Your task to perform on an android device: When is my next appointment? Image 0: 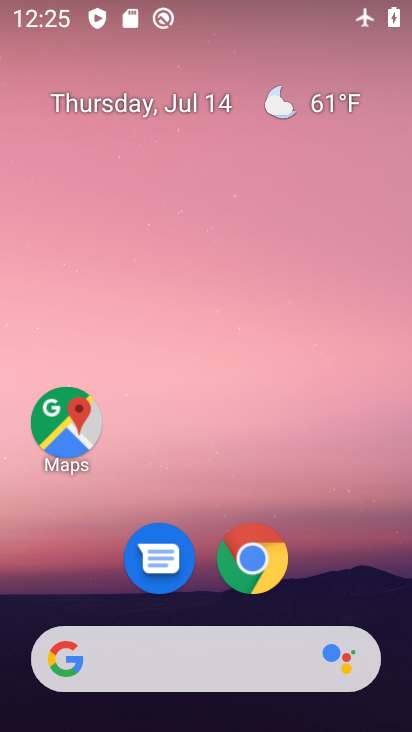
Step 0: drag from (170, 601) to (234, 175)
Your task to perform on an android device: When is my next appointment? Image 1: 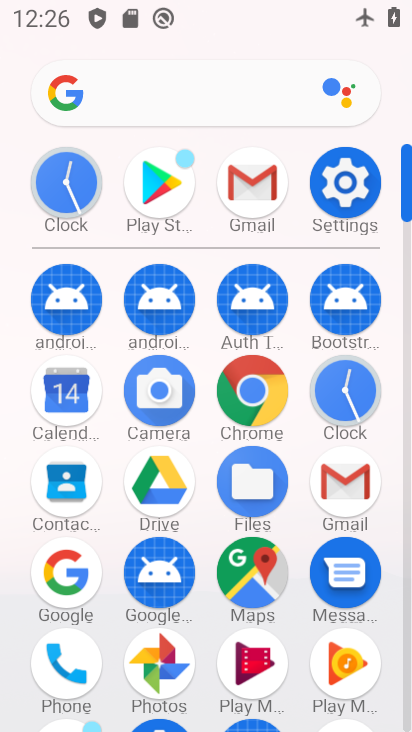
Step 1: click (74, 397)
Your task to perform on an android device: When is my next appointment? Image 2: 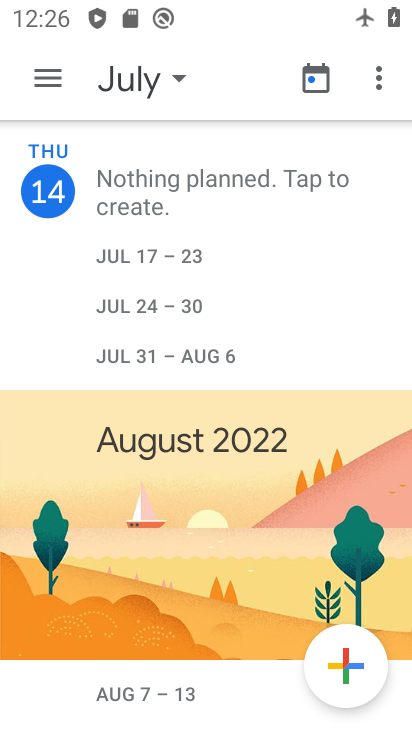
Step 2: task complete